Your task to perform on an android device: move a message to another label in the gmail app Image 0: 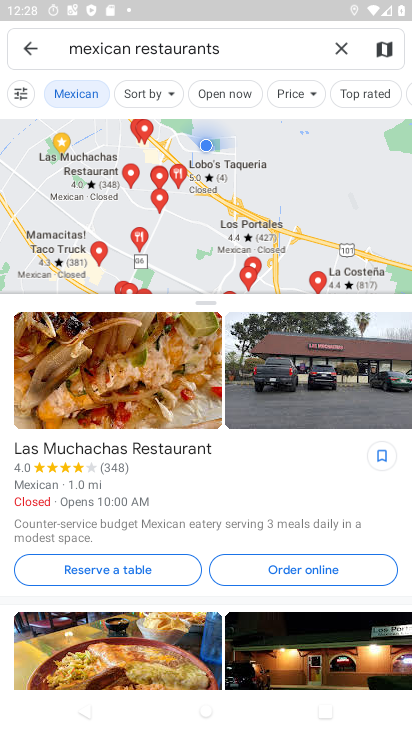
Step 0: press home button
Your task to perform on an android device: move a message to another label in the gmail app Image 1: 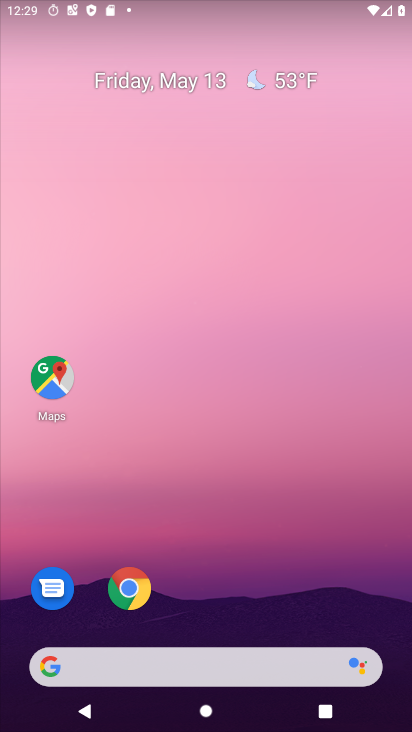
Step 1: drag from (306, 567) to (207, 176)
Your task to perform on an android device: move a message to another label in the gmail app Image 2: 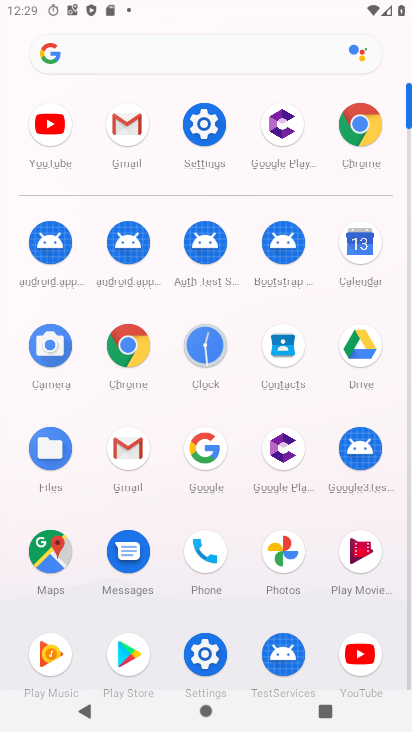
Step 2: click (127, 135)
Your task to perform on an android device: move a message to another label in the gmail app Image 3: 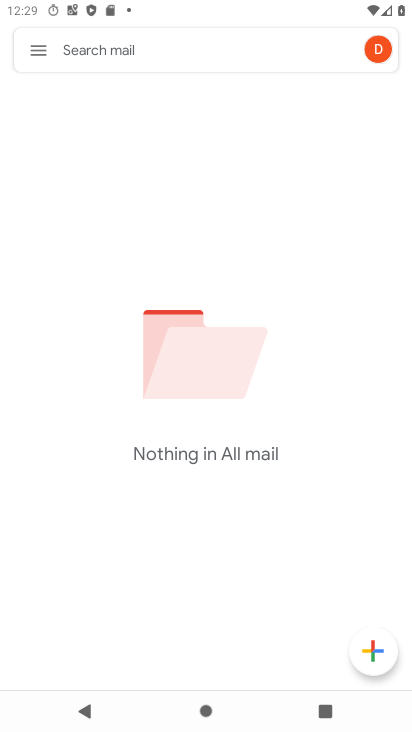
Step 3: click (44, 47)
Your task to perform on an android device: move a message to another label in the gmail app Image 4: 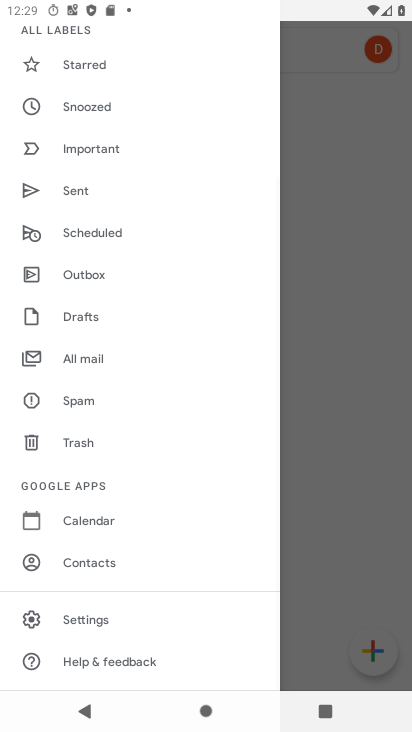
Step 4: click (124, 619)
Your task to perform on an android device: move a message to another label in the gmail app Image 5: 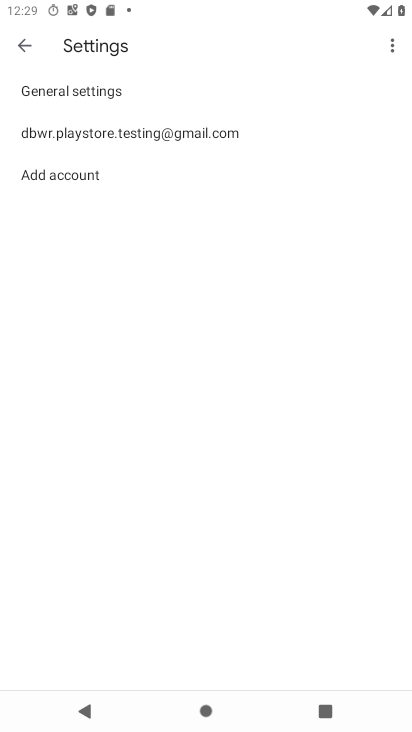
Step 5: click (24, 30)
Your task to perform on an android device: move a message to another label in the gmail app Image 6: 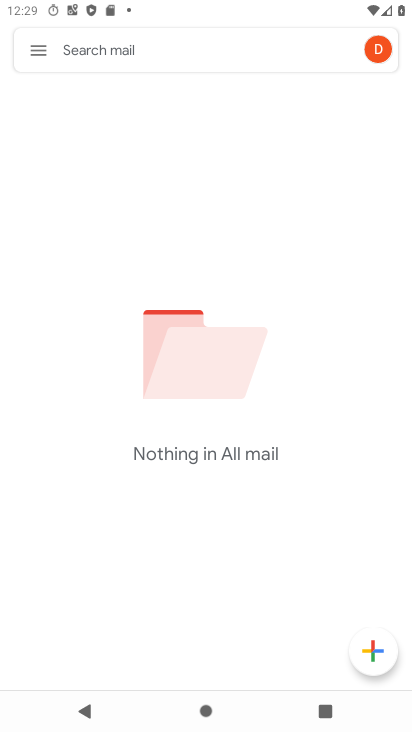
Step 6: task complete